Your task to perform on an android device: turn on the 12-hour format for clock Image 0: 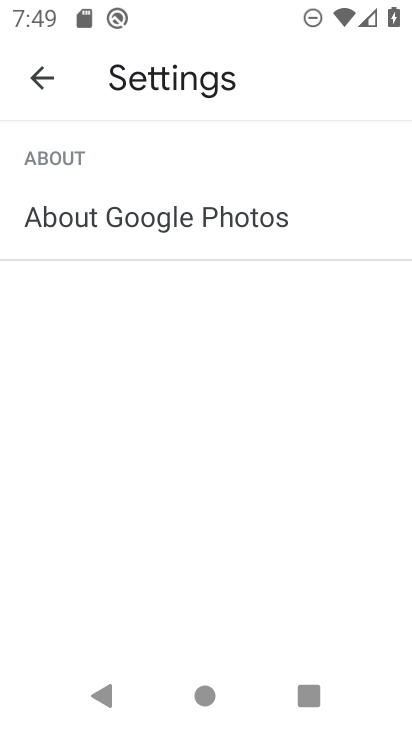
Step 0: press home button
Your task to perform on an android device: turn on the 12-hour format for clock Image 1: 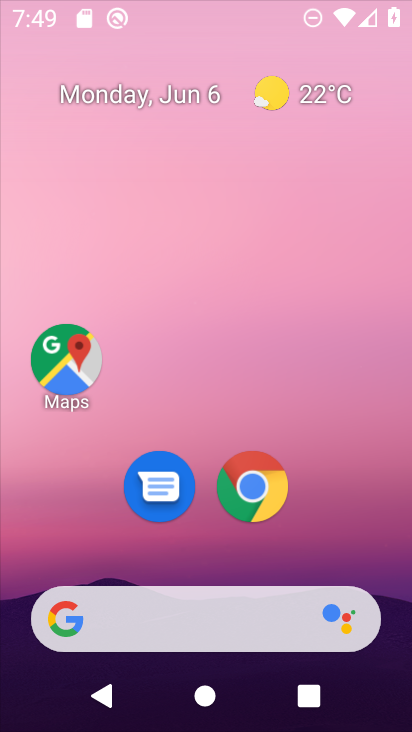
Step 1: drag from (405, 653) to (267, 34)
Your task to perform on an android device: turn on the 12-hour format for clock Image 2: 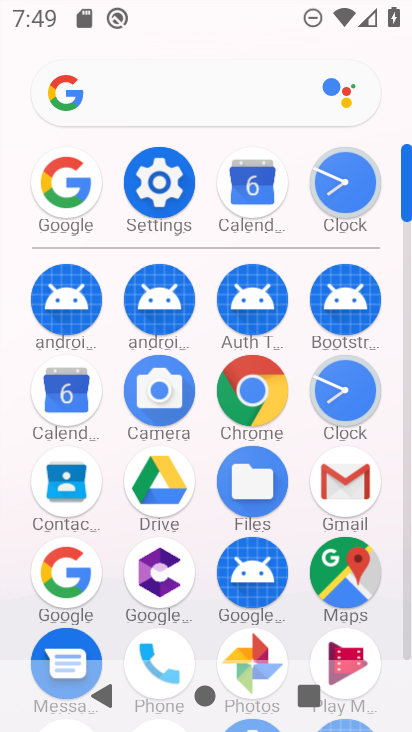
Step 2: click (342, 388)
Your task to perform on an android device: turn on the 12-hour format for clock Image 3: 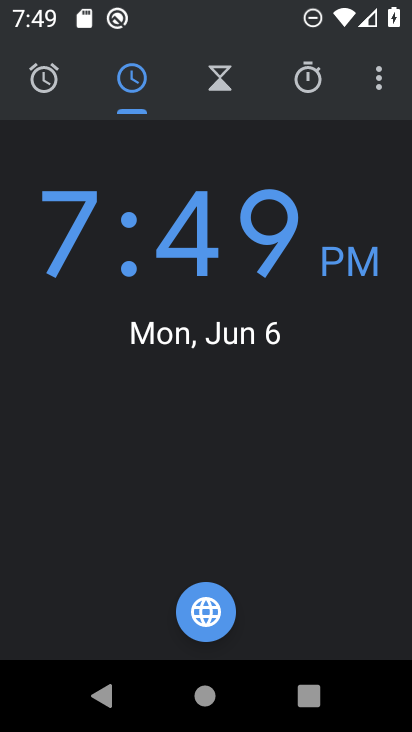
Step 3: click (379, 78)
Your task to perform on an android device: turn on the 12-hour format for clock Image 4: 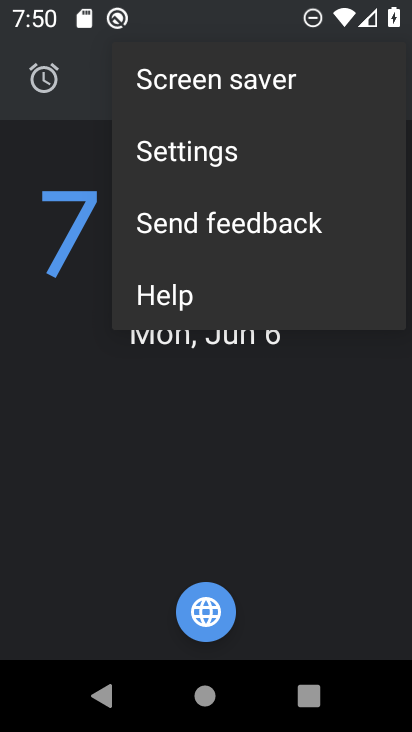
Step 4: click (232, 147)
Your task to perform on an android device: turn on the 12-hour format for clock Image 5: 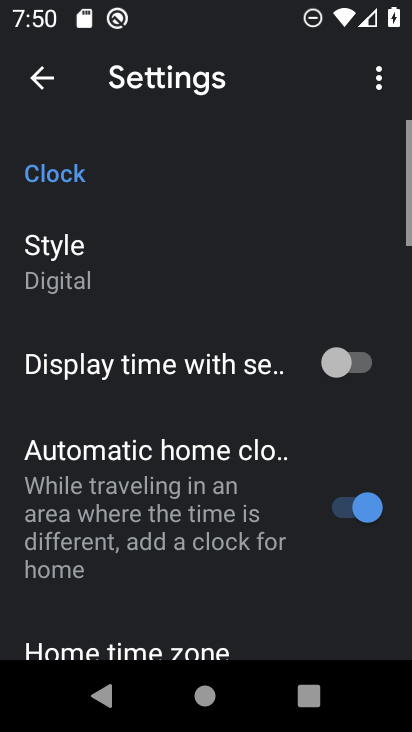
Step 5: drag from (188, 593) to (175, 137)
Your task to perform on an android device: turn on the 12-hour format for clock Image 6: 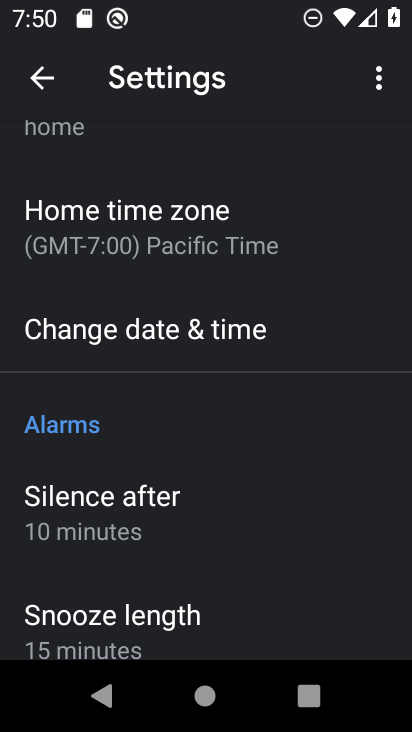
Step 6: click (169, 342)
Your task to perform on an android device: turn on the 12-hour format for clock Image 7: 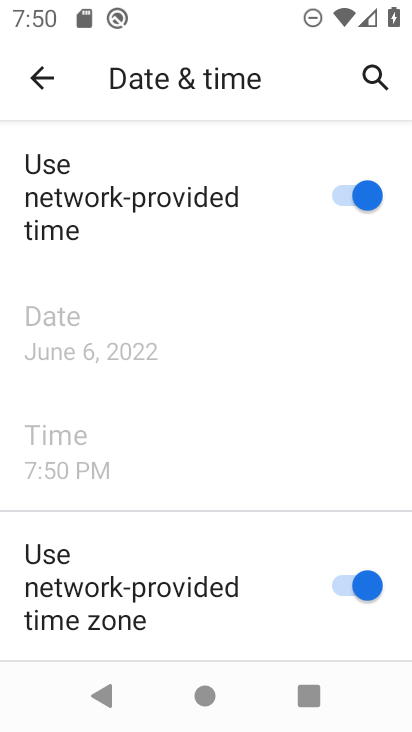
Step 7: task complete